Your task to perform on an android device: Is it going to rain this weekend? Image 0: 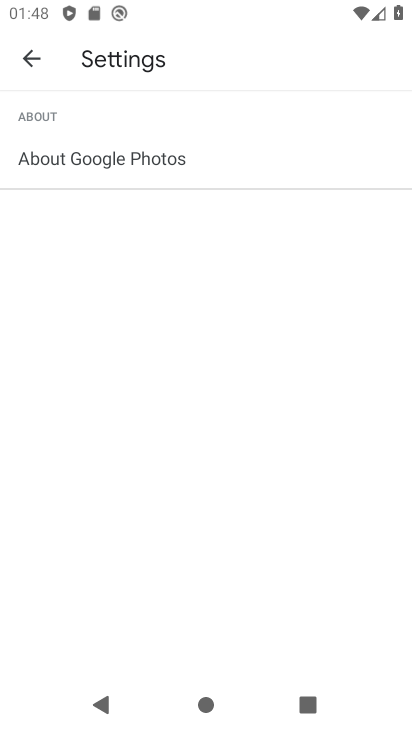
Step 0: press back button
Your task to perform on an android device: Is it going to rain this weekend? Image 1: 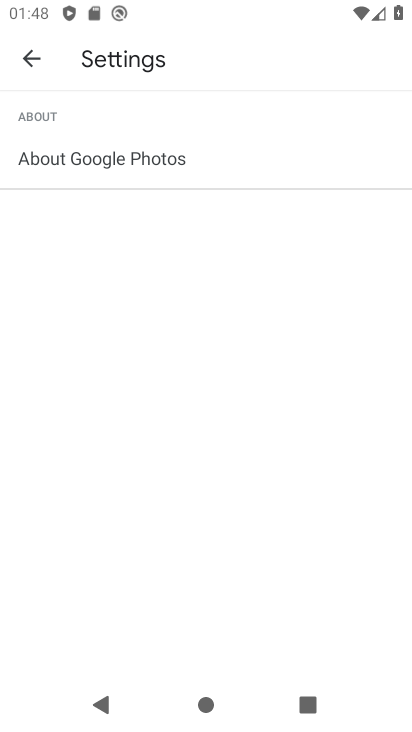
Step 1: press home button
Your task to perform on an android device: Is it going to rain this weekend? Image 2: 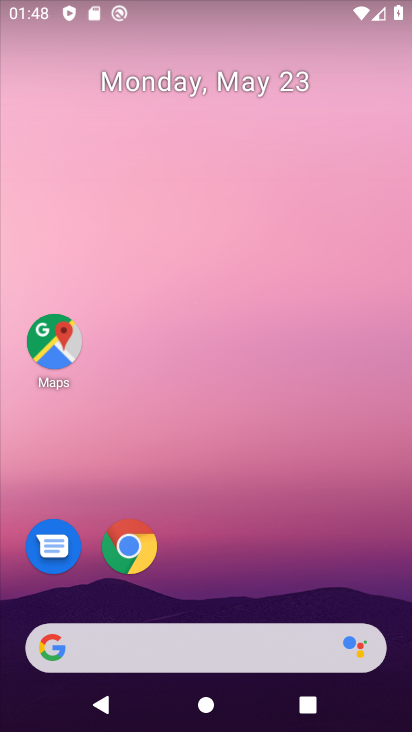
Step 2: drag from (147, 565) to (234, 118)
Your task to perform on an android device: Is it going to rain this weekend? Image 3: 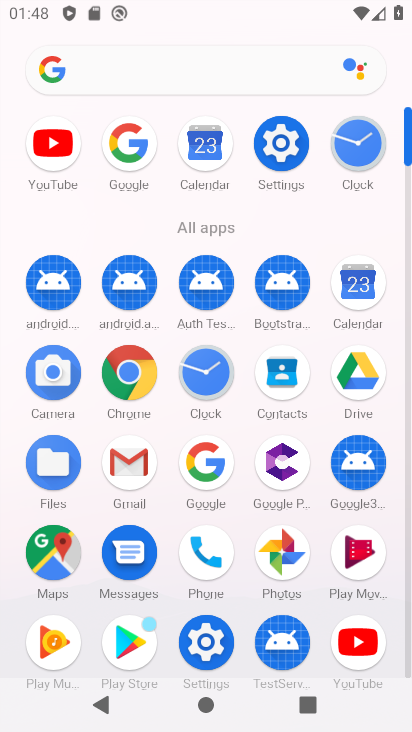
Step 3: click (213, 134)
Your task to perform on an android device: Is it going to rain this weekend? Image 4: 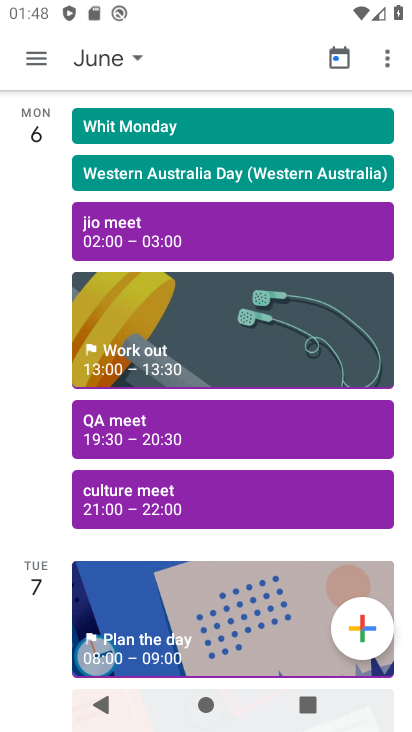
Step 4: press back button
Your task to perform on an android device: Is it going to rain this weekend? Image 5: 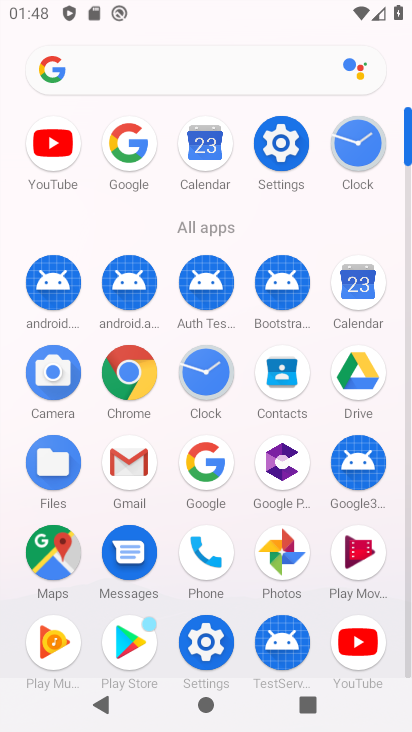
Step 5: click (127, 75)
Your task to perform on an android device: Is it going to rain this weekend? Image 6: 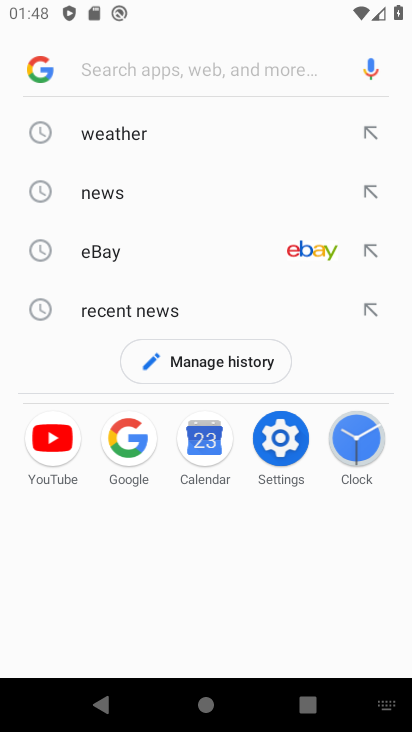
Step 6: click (146, 135)
Your task to perform on an android device: Is it going to rain this weekend? Image 7: 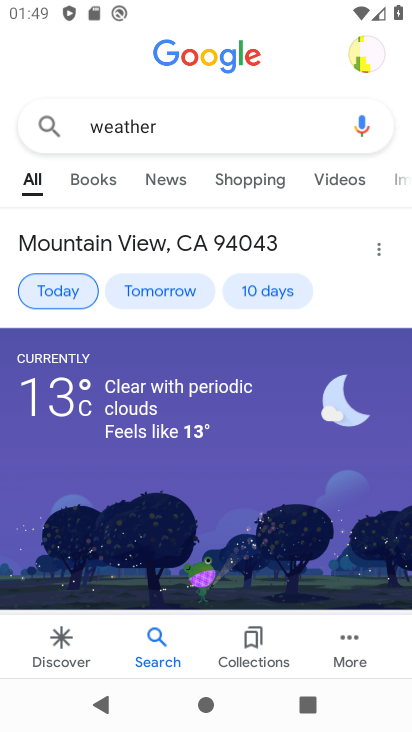
Step 7: click (282, 282)
Your task to perform on an android device: Is it going to rain this weekend? Image 8: 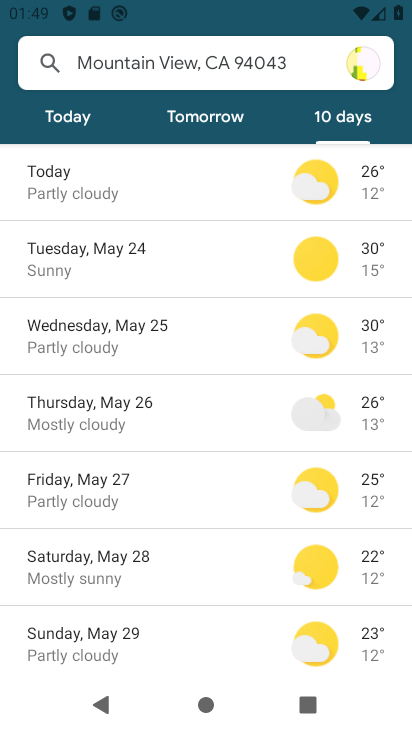
Step 8: task complete